Your task to perform on an android device: stop showing notifications on the lock screen Image 0: 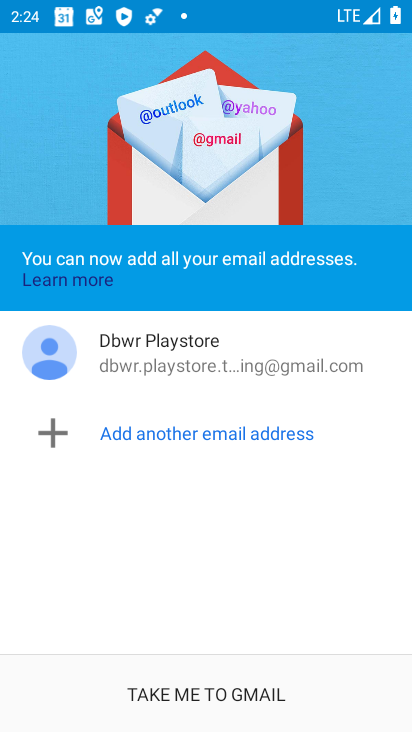
Step 0: press home button
Your task to perform on an android device: stop showing notifications on the lock screen Image 1: 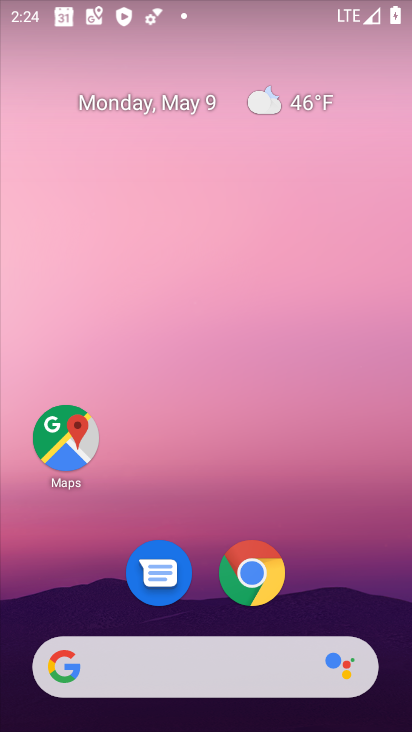
Step 1: drag from (213, 607) to (253, 116)
Your task to perform on an android device: stop showing notifications on the lock screen Image 2: 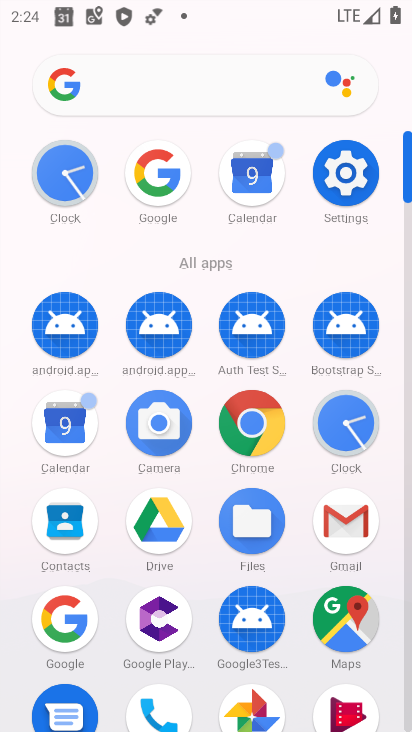
Step 2: click (348, 170)
Your task to perform on an android device: stop showing notifications on the lock screen Image 3: 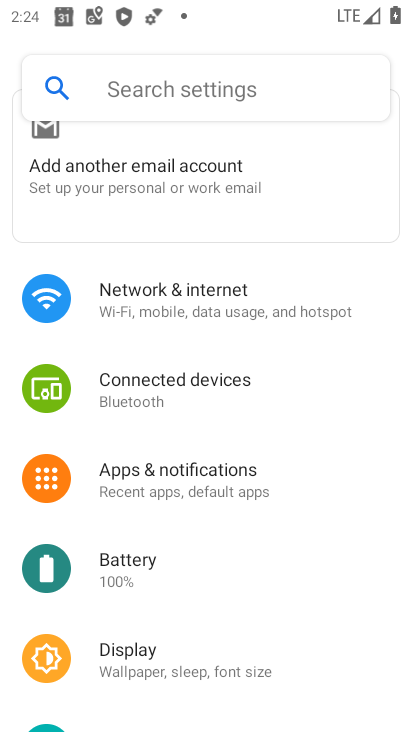
Step 3: click (185, 489)
Your task to perform on an android device: stop showing notifications on the lock screen Image 4: 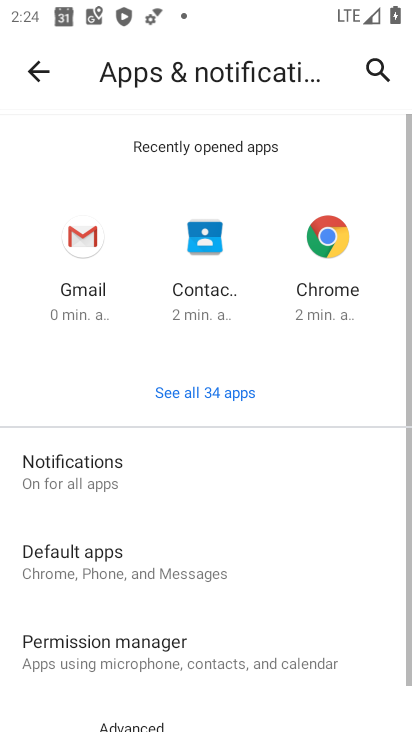
Step 4: click (55, 477)
Your task to perform on an android device: stop showing notifications on the lock screen Image 5: 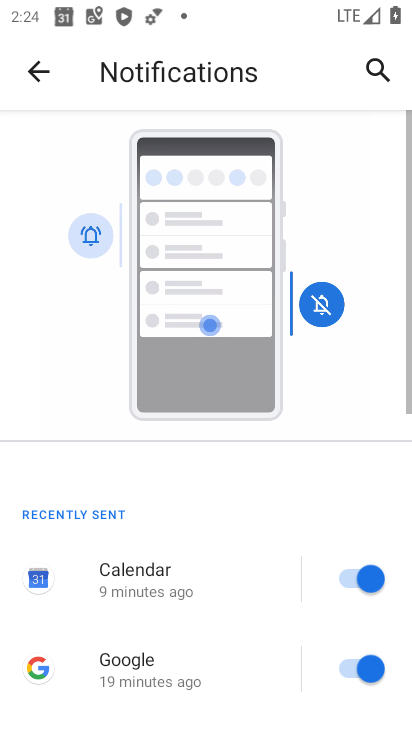
Step 5: drag from (208, 592) to (247, 117)
Your task to perform on an android device: stop showing notifications on the lock screen Image 6: 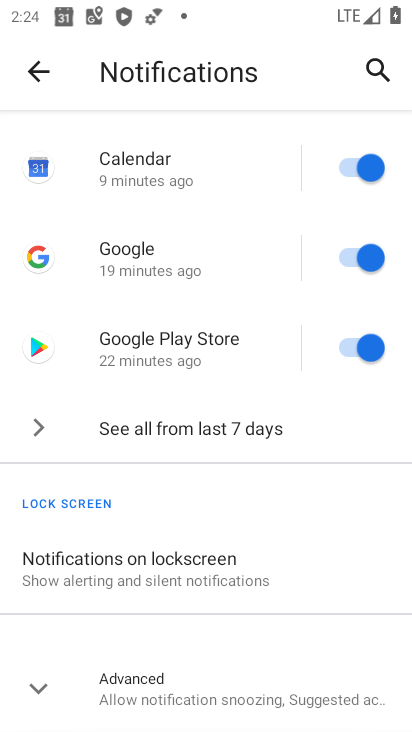
Step 6: click (142, 563)
Your task to perform on an android device: stop showing notifications on the lock screen Image 7: 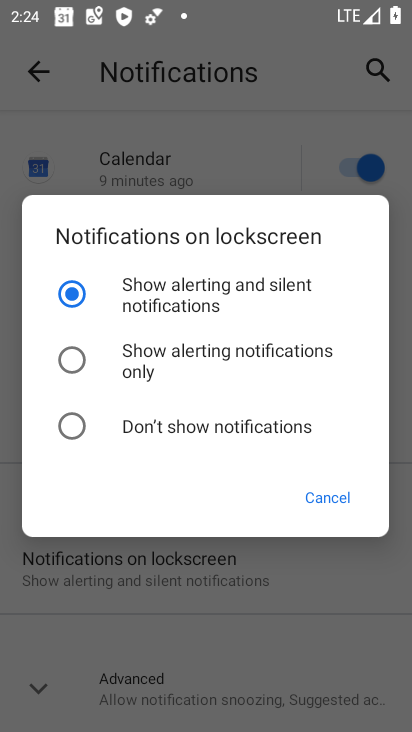
Step 7: click (64, 431)
Your task to perform on an android device: stop showing notifications on the lock screen Image 8: 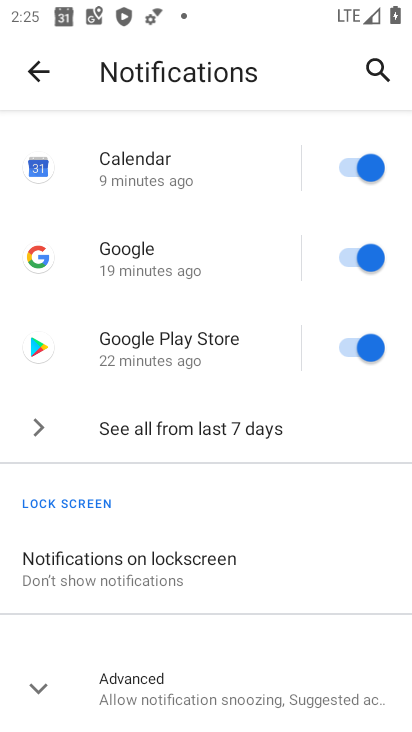
Step 8: task complete